Your task to perform on an android device: make emails show in primary in the gmail app Image 0: 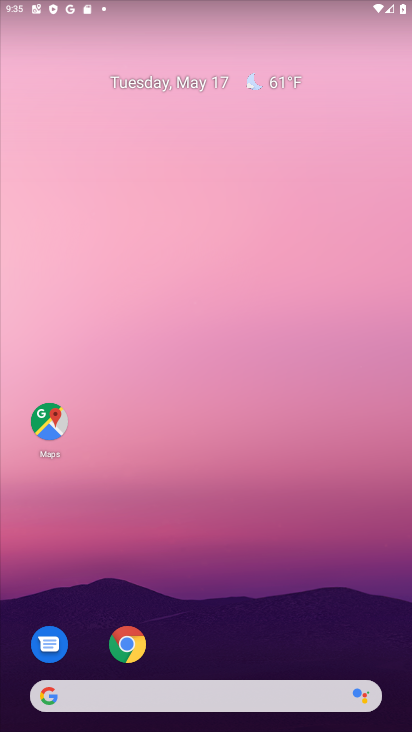
Step 0: drag from (179, 653) to (225, 27)
Your task to perform on an android device: make emails show in primary in the gmail app Image 1: 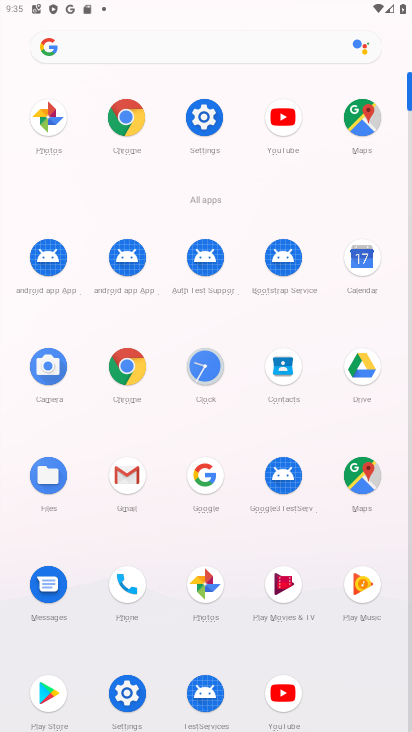
Step 1: click (126, 471)
Your task to perform on an android device: make emails show in primary in the gmail app Image 2: 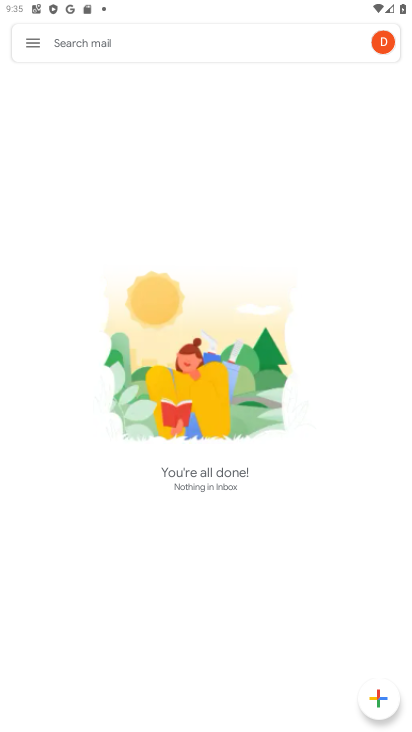
Step 2: click (36, 52)
Your task to perform on an android device: make emails show in primary in the gmail app Image 3: 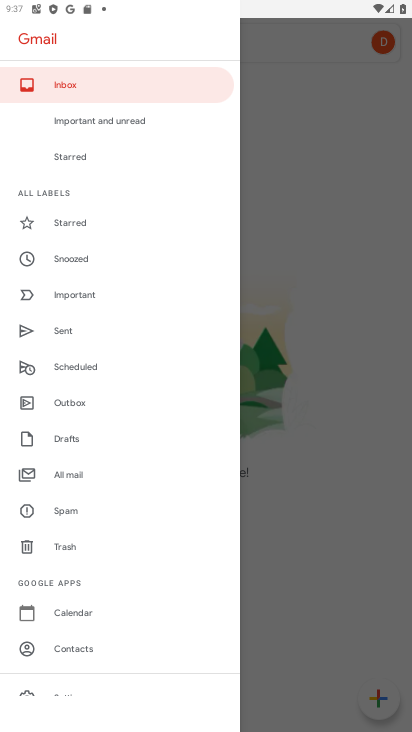
Step 3: task complete